Your task to perform on an android device: toggle wifi Image 0: 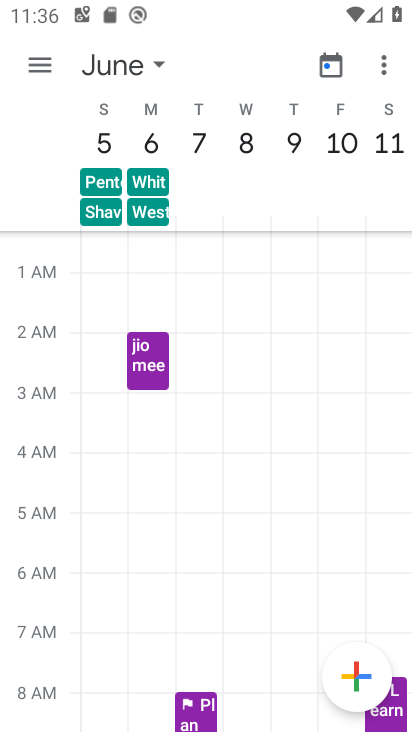
Step 0: press home button
Your task to perform on an android device: toggle wifi Image 1: 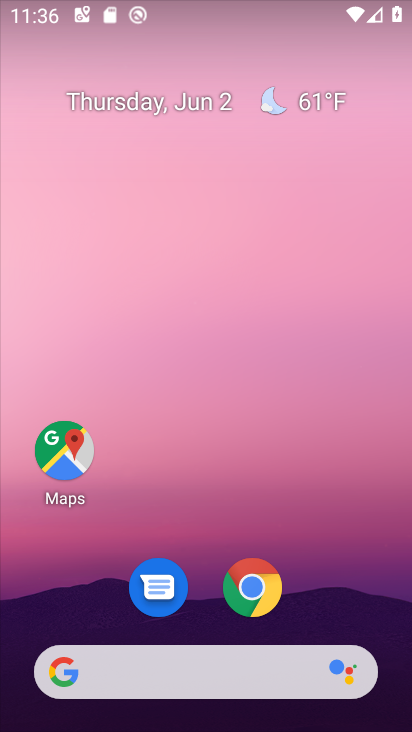
Step 1: drag from (203, 466) to (227, 0)
Your task to perform on an android device: toggle wifi Image 2: 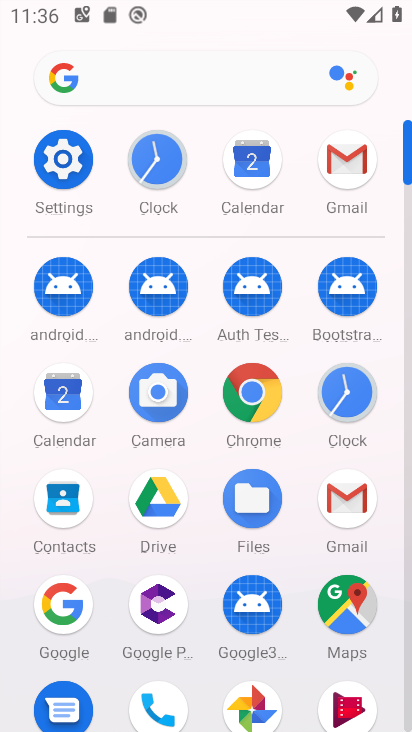
Step 2: click (75, 167)
Your task to perform on an android device: toggle wifi Image 3: 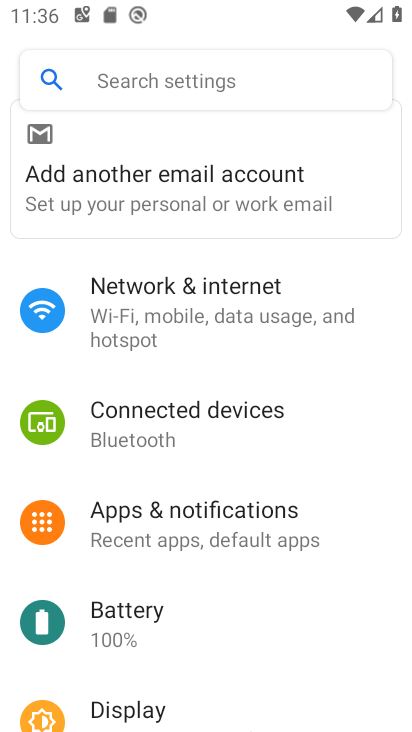
Step 3: click (218, 296)
Your task to perform on an android device: toggle wifi Image 4: 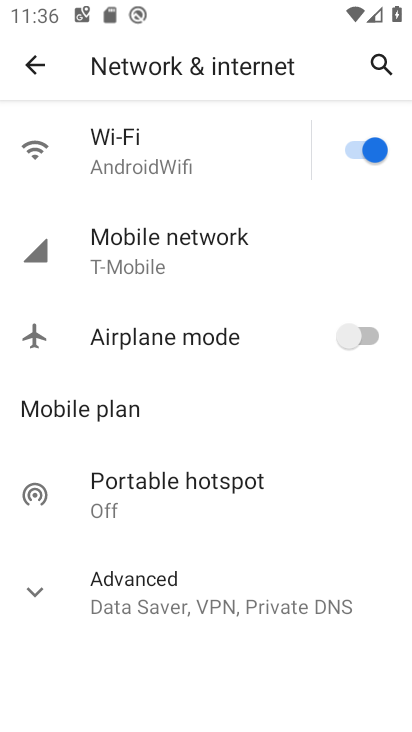
Step 4: click (351, 148)
Your task to perform on an android device: toggle wifi Image 5: 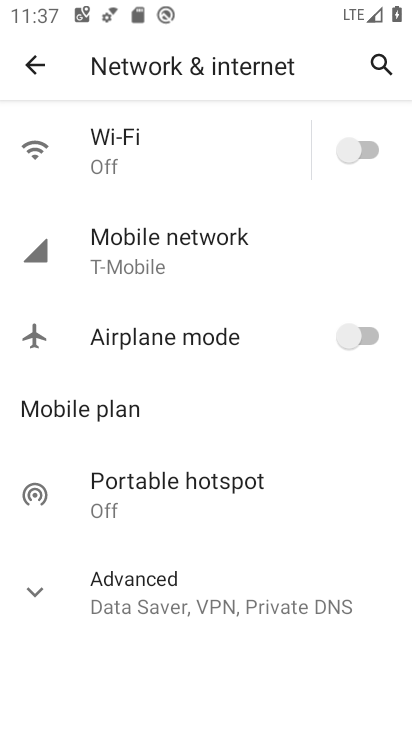
Step 5: task complete